Your task to perform on an android device: What's the latest tech news? Image 0: 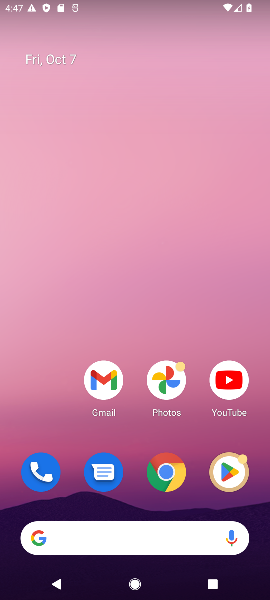
Step 0: click (175, 476)
Your task to perform on an android device: What's the latest tech news? Image 1: 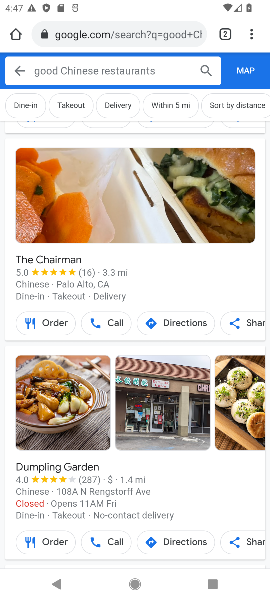
Step 1: click (131, 36)
Your task to perform on an android device: What's the latest tech news? Image 2: 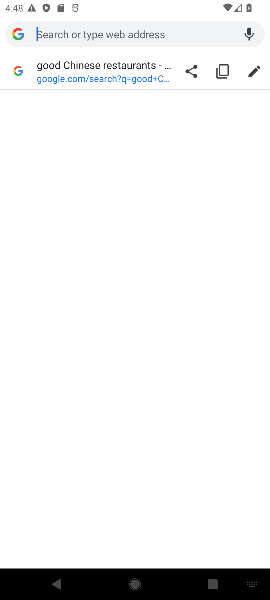
Step 2: type "latest tech news"
Your task to perform on an android device: What's the latest tech news? Image 3: 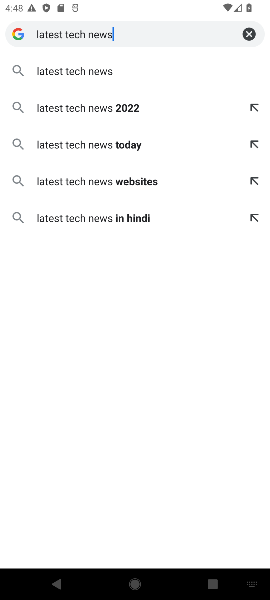
Step 3: click (111, 71)
Your task to perform on an android device: What's the latest tech news? Image 4: 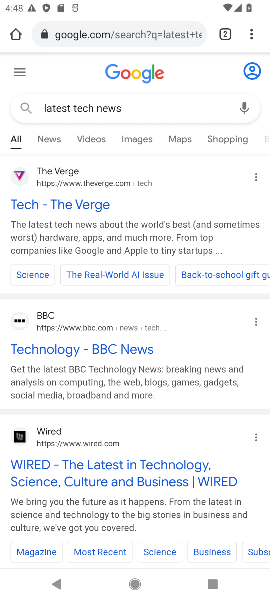
Step 4: click (47, 137)
Your task to perform on an android device: What's the latest tech news? Image 5: 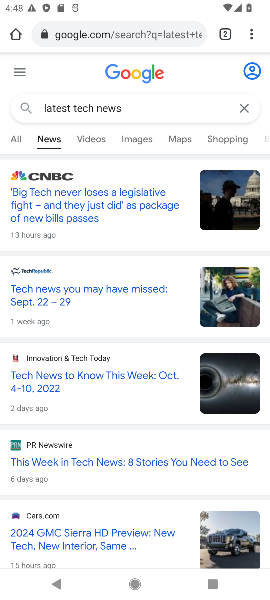
Step 5: task complete